Your task to perform on an android device: check data usage Image 0: 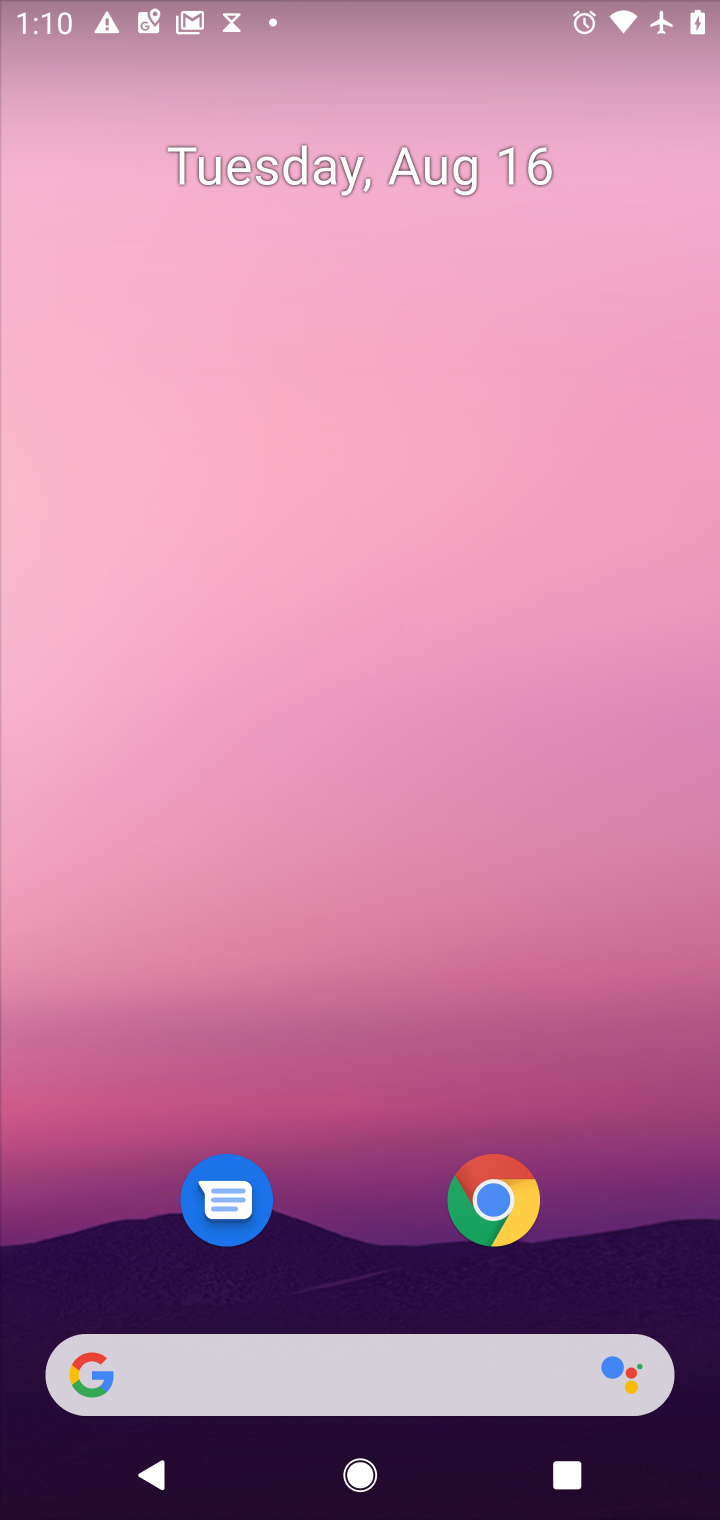
Step 0: drag from (347, 1274) to (344, 350)
Your task to perform on an android device: check data usage Image 1: 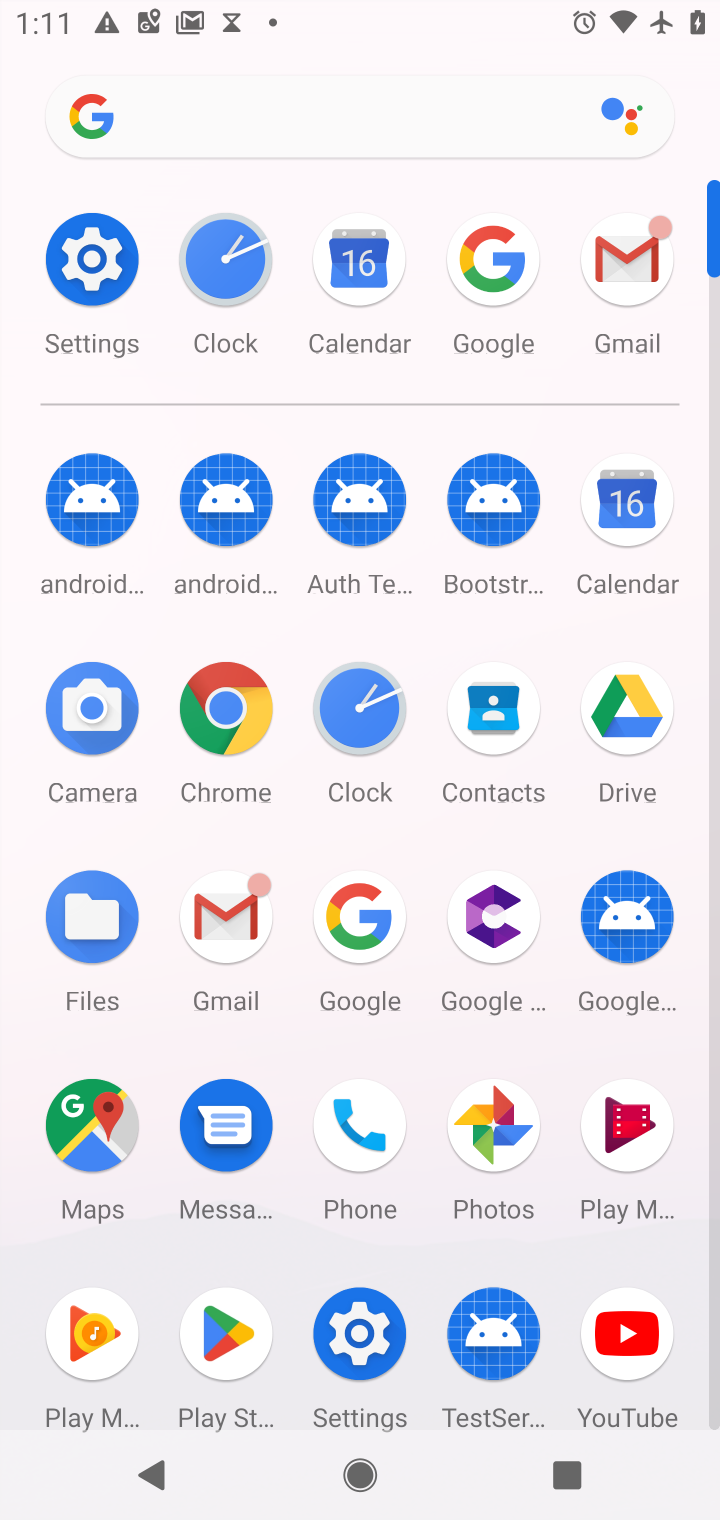
Step 1: click (105, 273)
Your task to perform on an android device: check data usage Image 2: 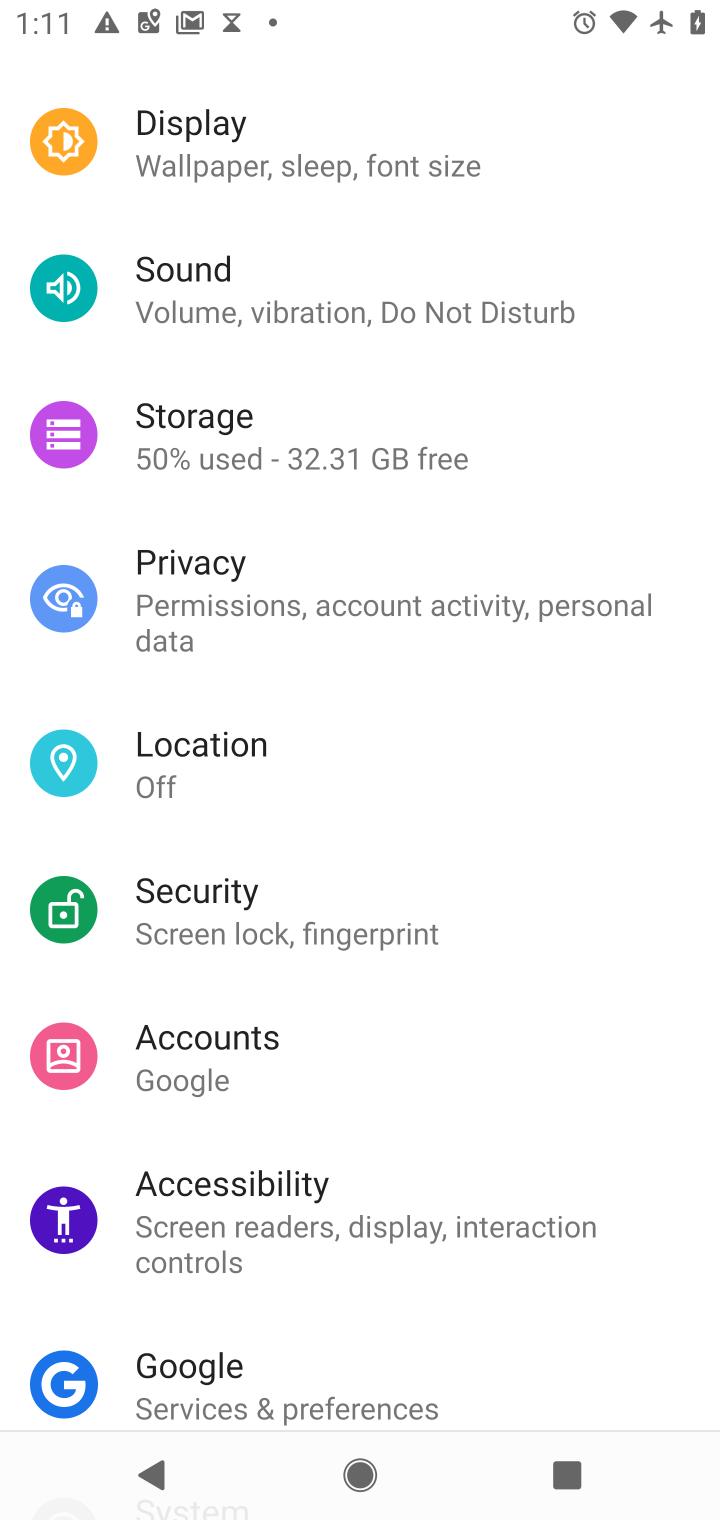
Step 2: click (259, 468)
Your task to perform on an android device: check data usage Image 3: 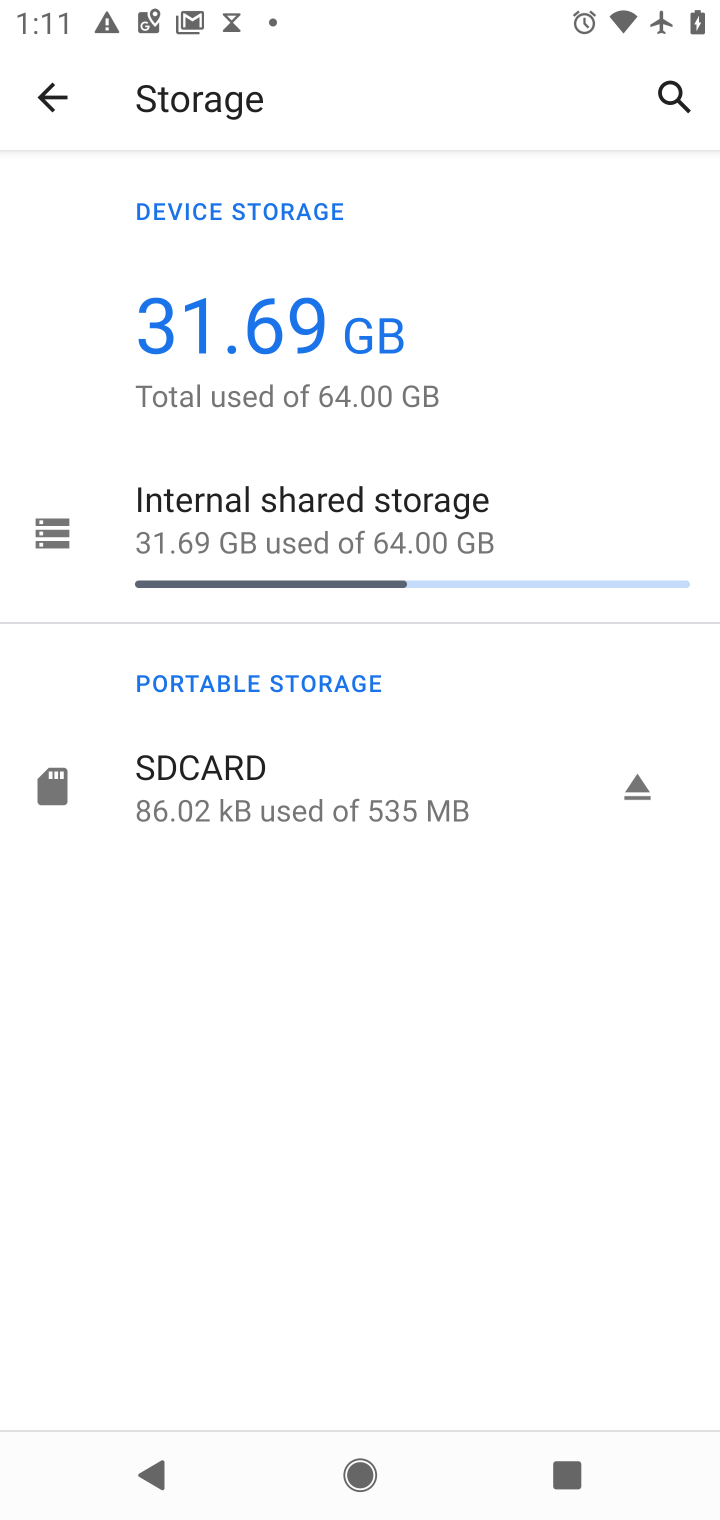
Step 3: click (322, 592)
Your task to perform on an android device: check data usage Image 4: 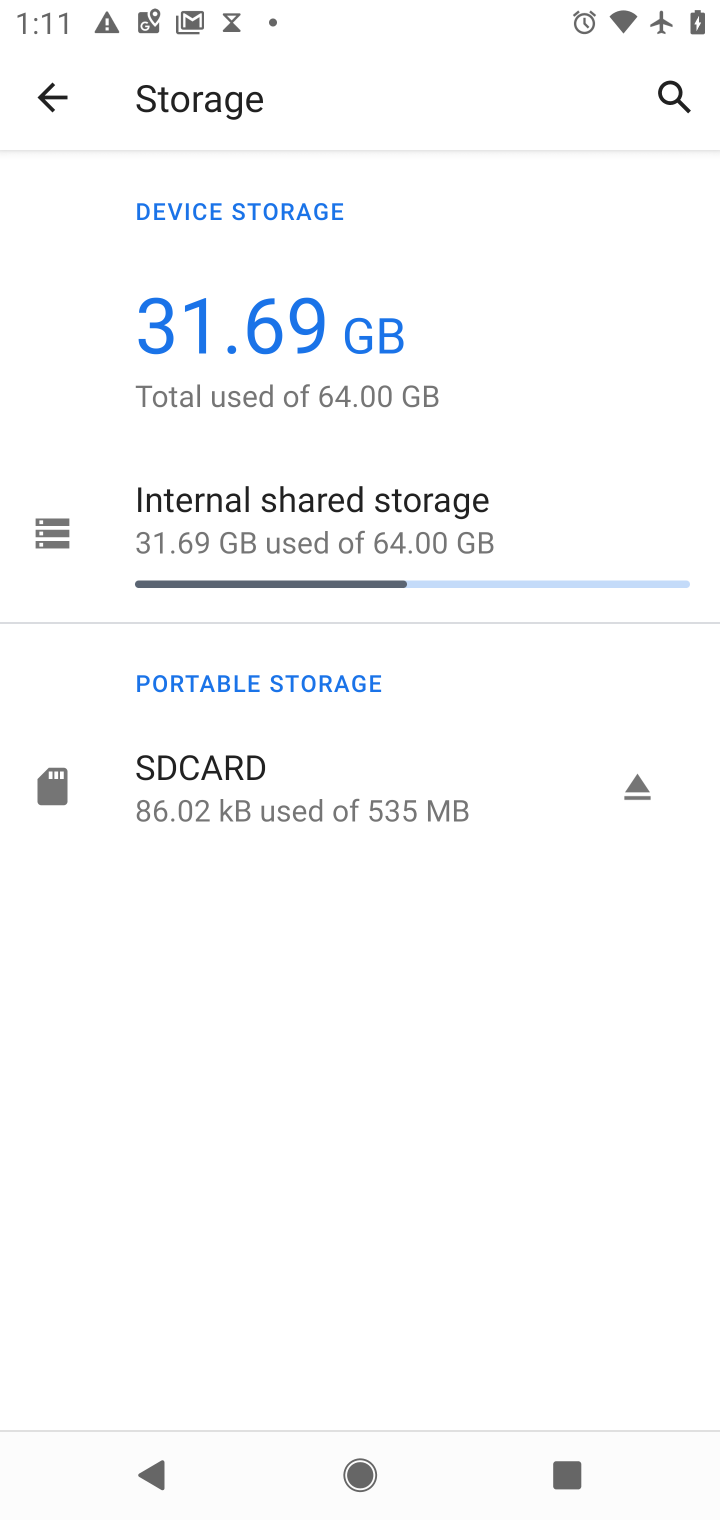
Step 4: task complete